Your task to perform on an android device: Go to display settings Image 0: 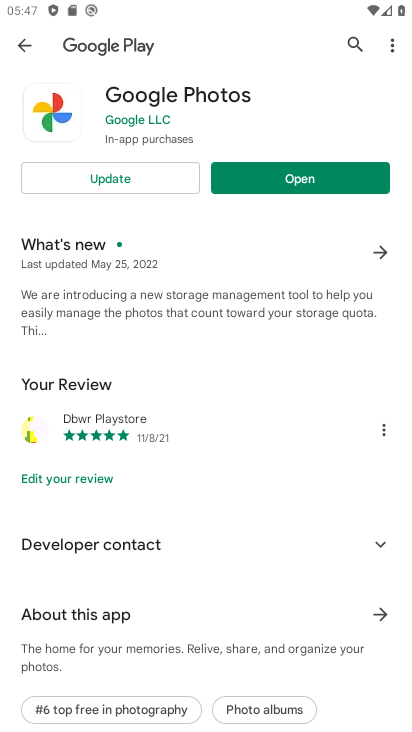
Step 0: press home button
Your task to perform on an android device: Go to display settings Image 1: 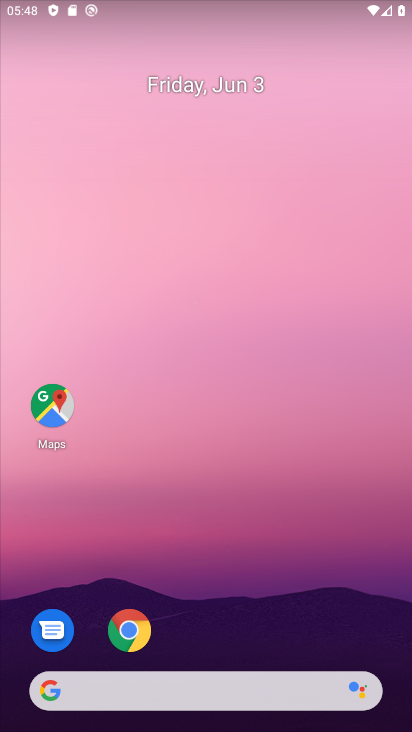
Step 1: drag from (287, 592) to (247, 0)
Your task to perform on an android device: Go to display settings Image 2: 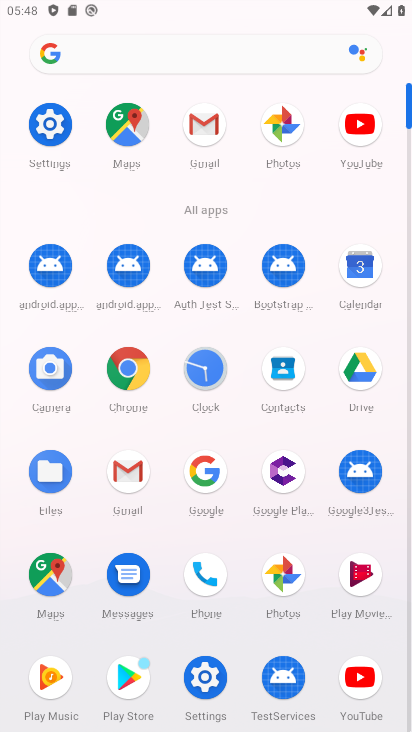
Step 2: drag from (274, 461) to (306, 101)
Your task to perform on an android device: Go to display settings Image 3: 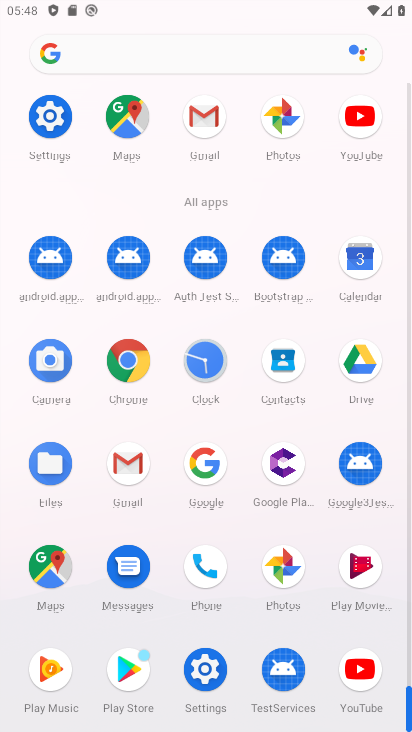
Step 3: click (42, 133)
Your task to perform on an android device: Go to display settings Image 4: 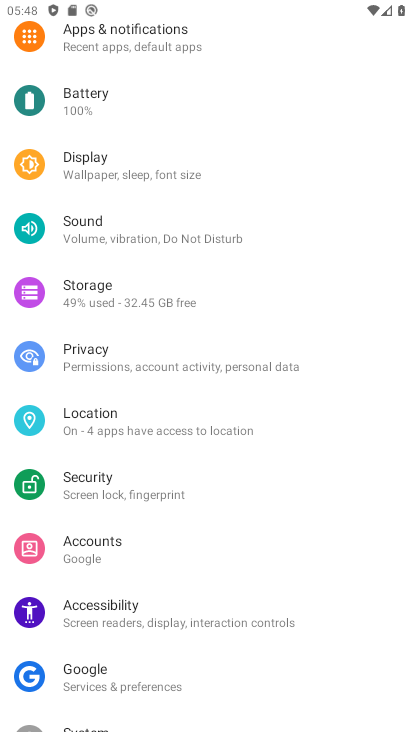
Step 4: click (79, 183)
Your task to perform on an android device: Go to display settings Image 5: 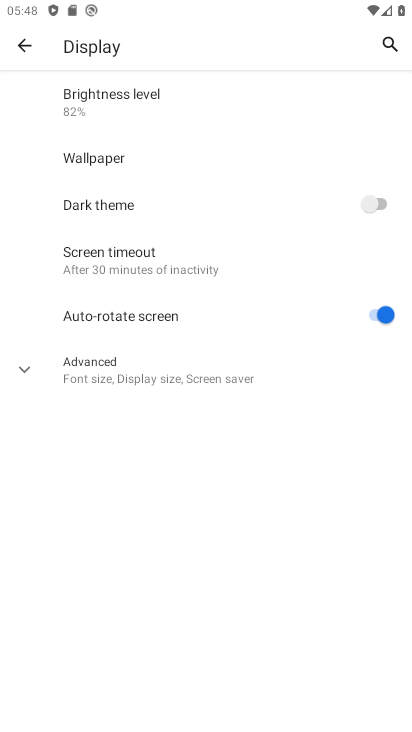
Step 5: task complete